Your task to perform on an android device: turn on showing notifications on the lock screen Image 0: 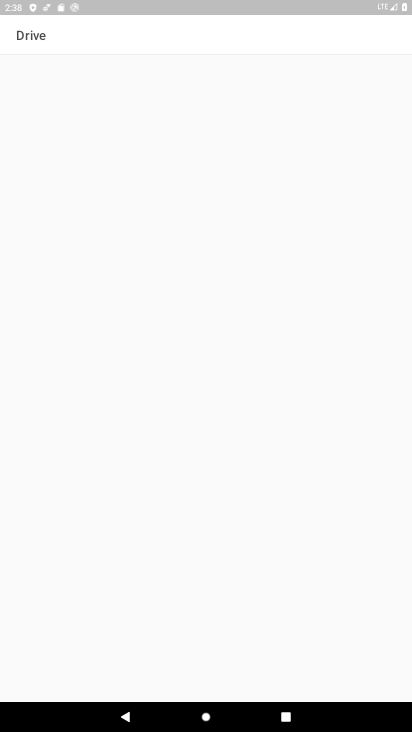
Step 0: press home button
Your task to perform on an android device: turn on showing notifications on the lock screen Image 1: 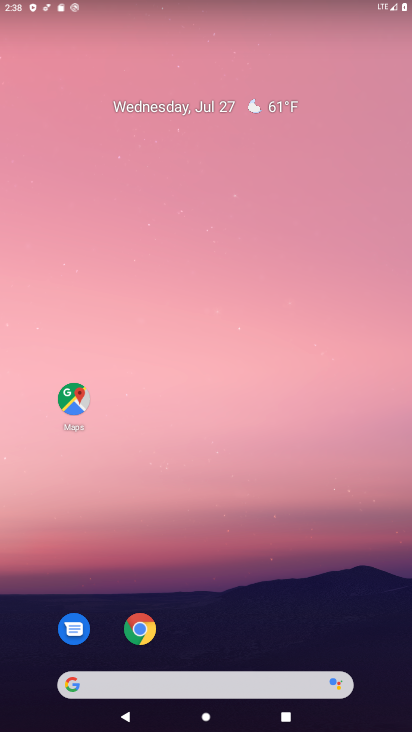
Step 1: drag from (188, 685) to (332, 42)
Your task to perform on an android device: turn on showing notifications on the lock screen Image 2: 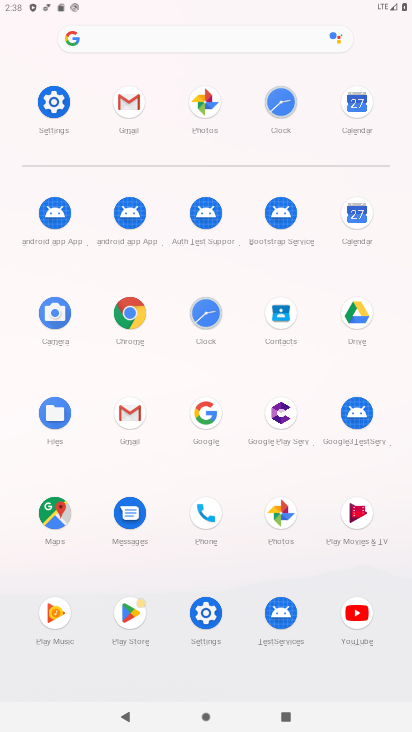
Step 2: click (54, 101)
Your task to perform on an android device: turn on showing notifications on the lock screen Image 3: 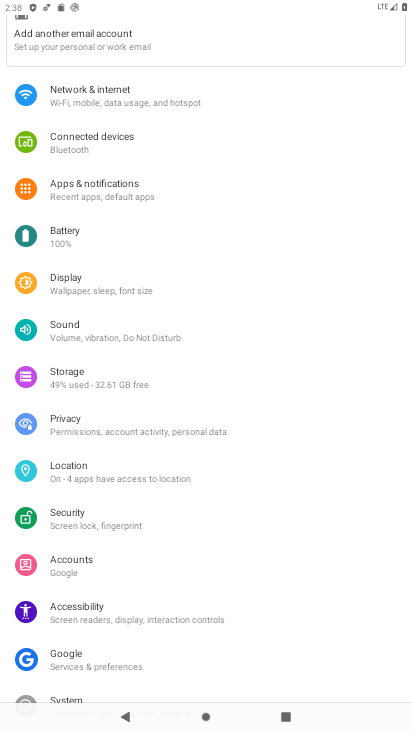
Step 3: click (82, 185)
Your task to perform on an android device: turn on showing notifications on the lock screen Image 4: 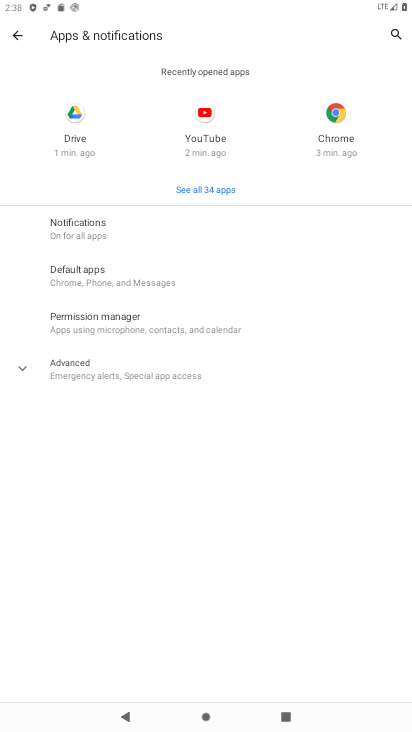
Step 4: click (87, 228)
Your task to perform on an android device: turn on showing notifications on the lock screen Image 5: 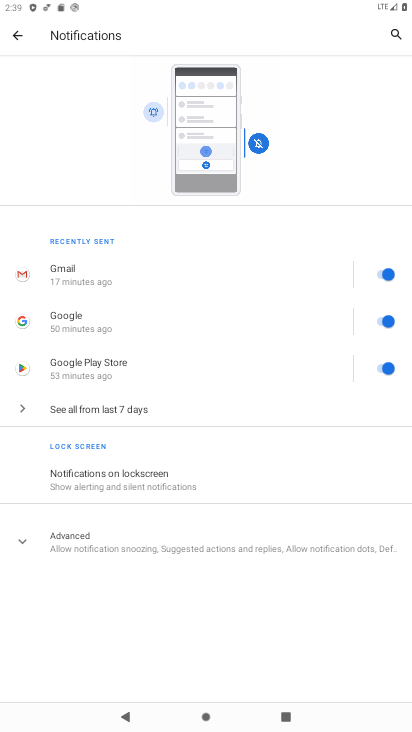
Step 5: click (98, 476)
Your task to perform on an android device: turn on showing notifications on the lock screen Image 6: 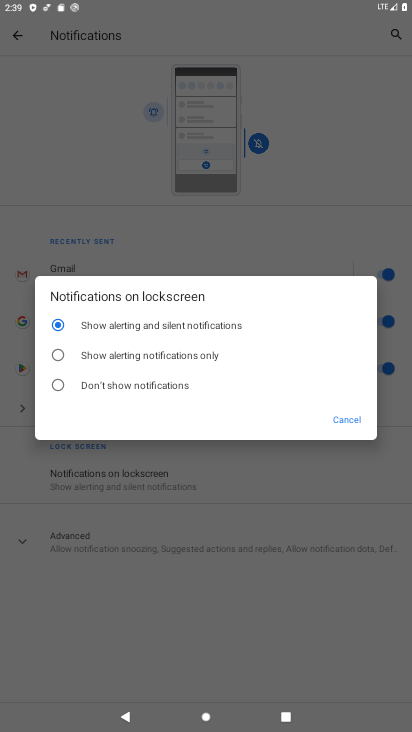
Step 6: click (50, 316)
Your task to perform on an android device: turn on showing notifications on the lock screen Image 7: 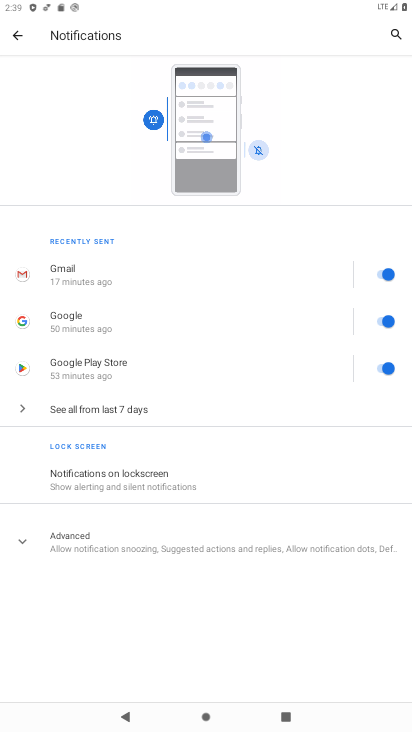
Step 7: task complete